Your task to perform on an android device: Clear the shopping cart on walmart.com. Add "usb-a to usb-b" to the cart on walmart.com, then select checkout. Image 0: 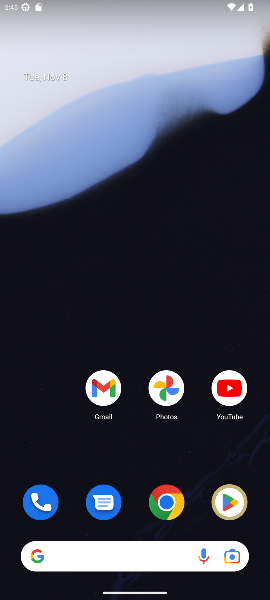
Step 0: drag from (122, 525) to (130, 157)
Your task to perform on an android device: Clear the shopping cart on walmart.com. Add "usb-a to usb-b" to the cart on walmart.com, then select checkout. Image 1: 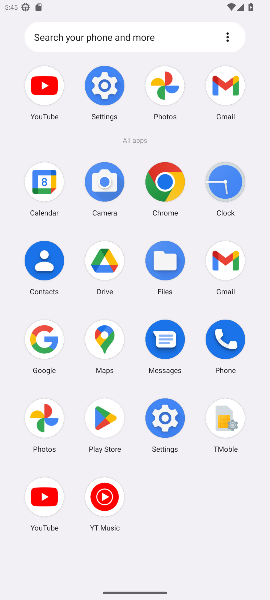
Step 1: click (34, 333)
Your task to perform on an android device: Clear the shopping cart on walmart.com. Add "usb-a to usb-b" to the cart on walmart.com, then select checkout. Image 2: 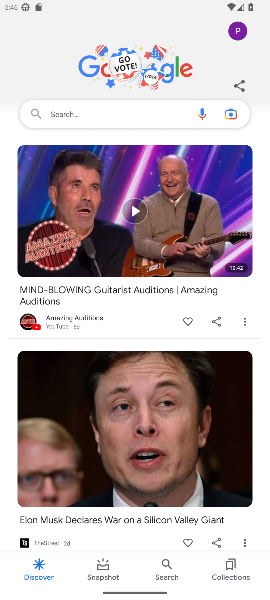
Step 2: click (64, 108)
Your task to perform on an android device: Clear the shopping cart on walmart.com. Add "usb-a to usb-b" to the cart on walmart.com, then select checkout. Image 3: 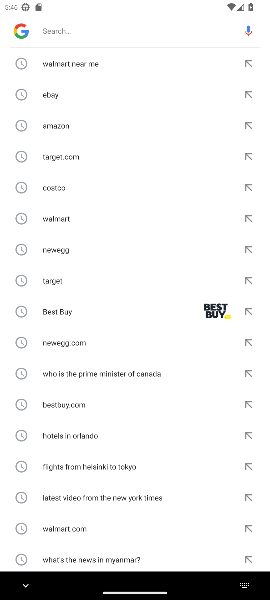
Step 3: type "walmart "
Your task to perform on an android device: Clear the shopping cart on walmart.com. Add "usb-a to usb-b" to the cart on walmart.com, then select checkout. Image 4: 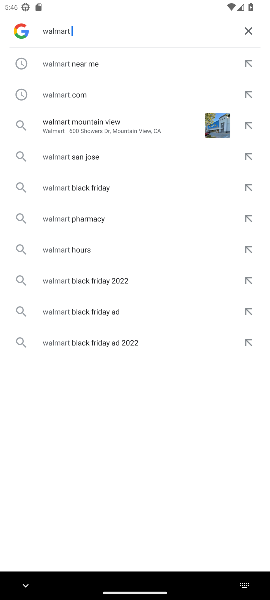
Step 4: click (64, 68)
Your task to perform on an android device: Clear the shopping cart on walmart.com. Add "usb-a to usb-b" to the cart on walmart.com, then select checkout. Image 5: 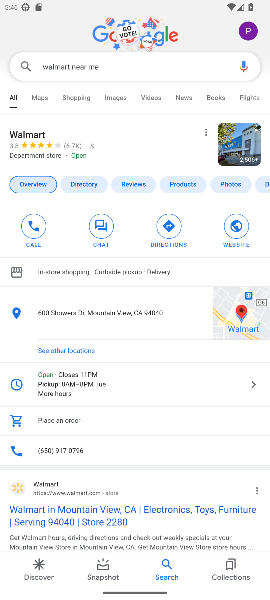
Step 5: drag from (33, 397) to (52, 204)
Your task to perform on an android device: Clear the shopping cart on walmart.com. Add "usb-a to usb-b" to the cart on walmart.com, then select checkout. Image 6: 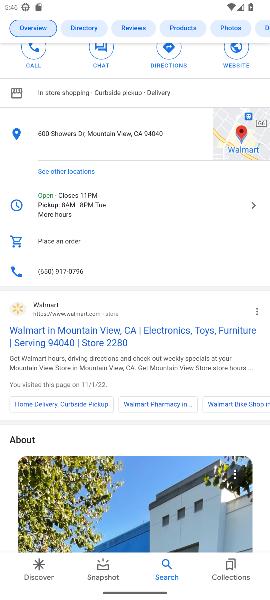
Step 6: click (59, 181)
Your task to perform on an android device: Clear the shopping cart on walmart.com. Add "usb-a to usb-b" to the cart on walmart.com, then select checkout. Image 7: 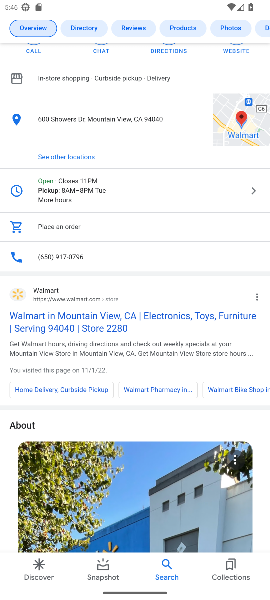
Step 7: click (16, 296)
Your task to perform on an android device: Clear the shopping cart on walmart.com. Add "usb-a to usb-b" to the cart on walmart.com, then select checkout. Image 8: 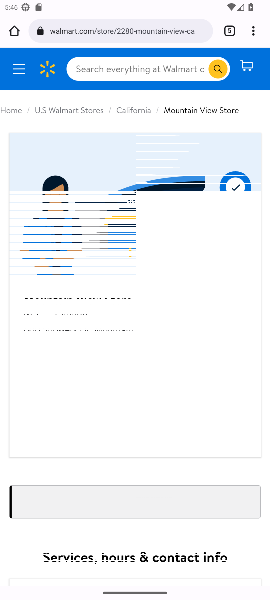
Step 8: click (122, 69)
Your task to perform on an android device: Clear the shopping cart on walmart.com. Add "usb-a to usb-b" to the cart on walmart.com, then select checkout. Image 9: 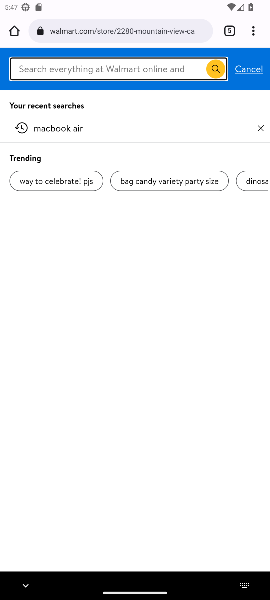
Step 9: click (93, 62)
Your task to perform on an android device: Clear the shopping cart on walmart.com. Add "usb-a to usb-b" to the cart on walmart.com, then select checkout. Image 10: 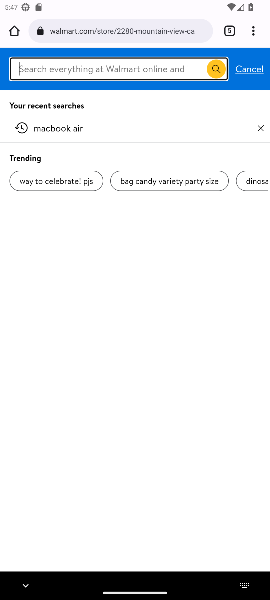
Step 10: type "usb-a to usb-b "
Your task to perform on an android device: Clear the shopping cart on walmart.com. Add "usb-a to usb-b" to the cart on walmart.com, then select checkout. Image 11: 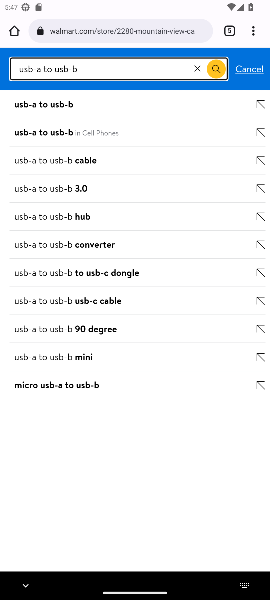
Step 11: click (38, 104)
Your task to perform on an android device: Clear the shopping cart on walmart.com. Add "usb-a to usb-b" to the cart on walmart.com, then select checkout. Image 12: 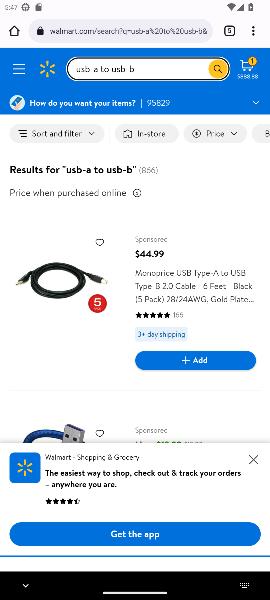
Step 12: click (256, 458)
Your task to perform on an android device: Clear the shopping cart on walmart.com. Add "usb-a to usb-b" to the cart on walmart.com, then select checkout. Image 13: 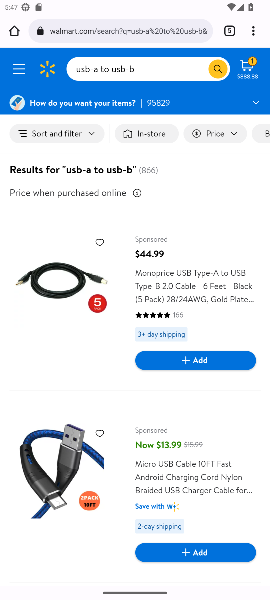
Step 13: click (202, 366)
Your task to perform on an android device: Clear the shopping cart on walmart.com. Add "usb-a to usb-b" to the cart on walmart.com, then select checkout. Image 14: 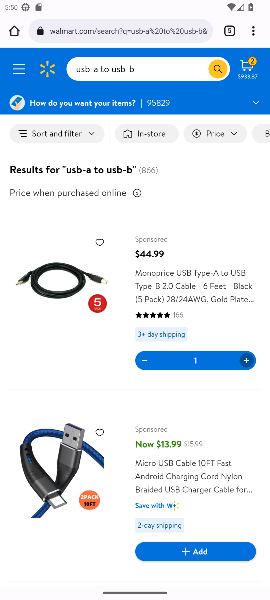
Step 14: task complete